Your task to perform on an android device: Go to battery settings Image 0: 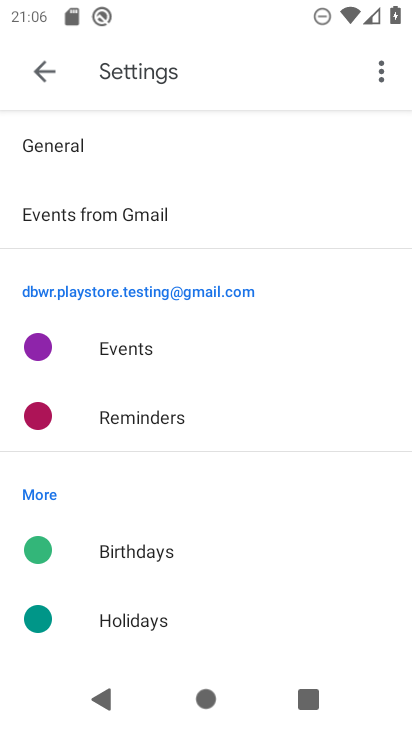
Step 0: press home button
Your task to perform on an android device: Go to battery settings Image 1: 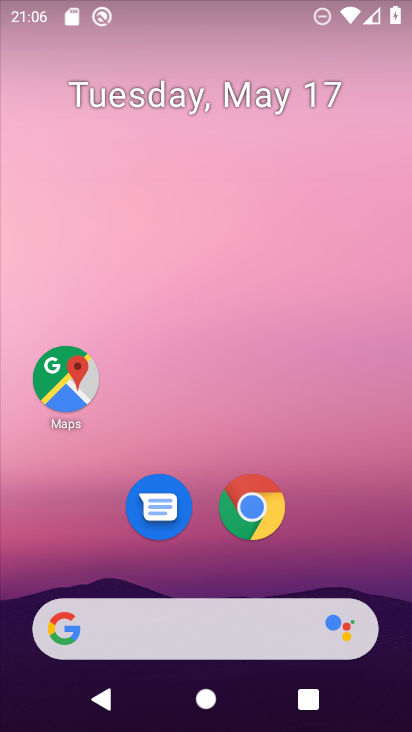
Step 1: drag from (361, 597) to (344, 378)
Your task to perform on an android device: Go to battery settings Image 2: 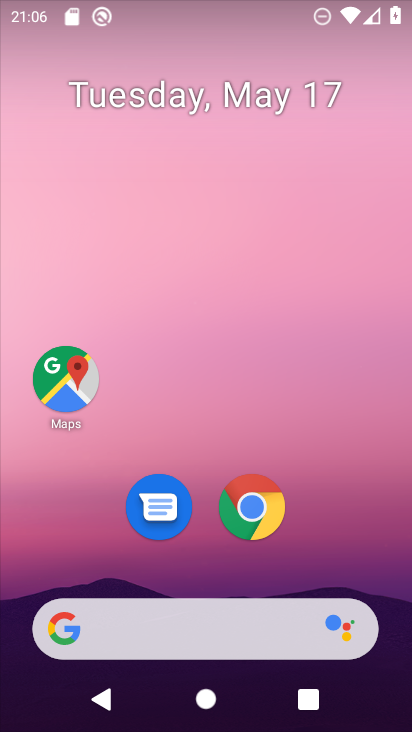
Step 2: drag from (337, 554) to (346, 112)
Your task to perform on an android device: Go to battery settings Image 3: 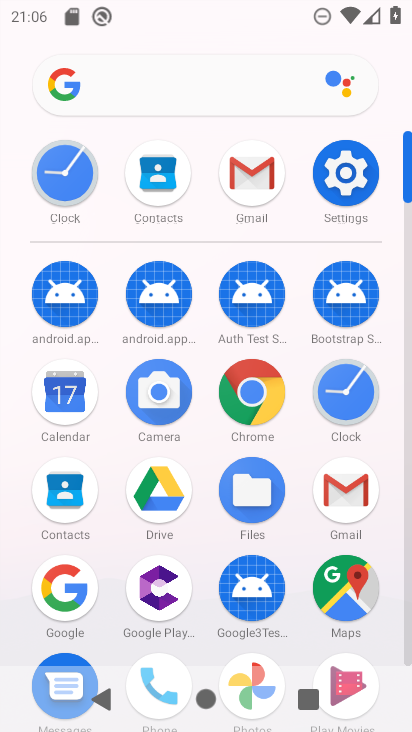
Step 3: click (345, 180)
Your task to perform on an android device: Go to battery settings Image 4: 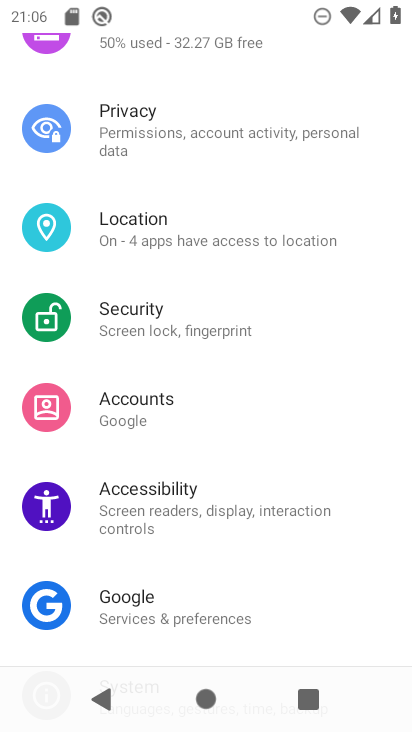
Step 4: drag from (262, 230) to (303, 465)
Your task to perform on an android device: Go to battery settings Image 5: 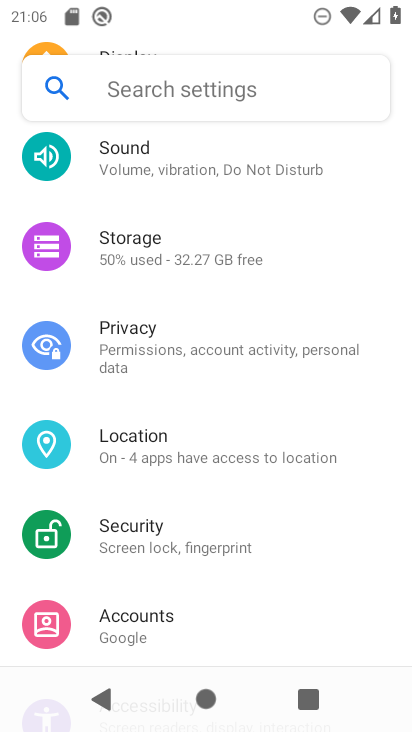
Step 5: drag from (203, 242) to (227, 567)
Your task to perform on an android device: Go to battery settings Image 6: 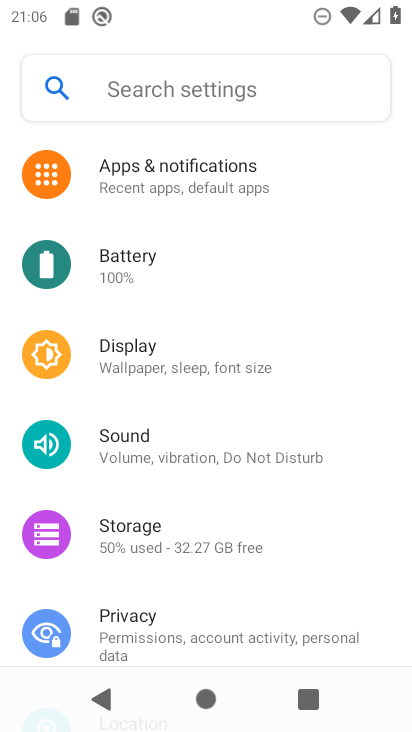
Step 6: drag from (188, 257) to (219, 539)
Your task to perform on an android device: Go to battery settings Image 7: 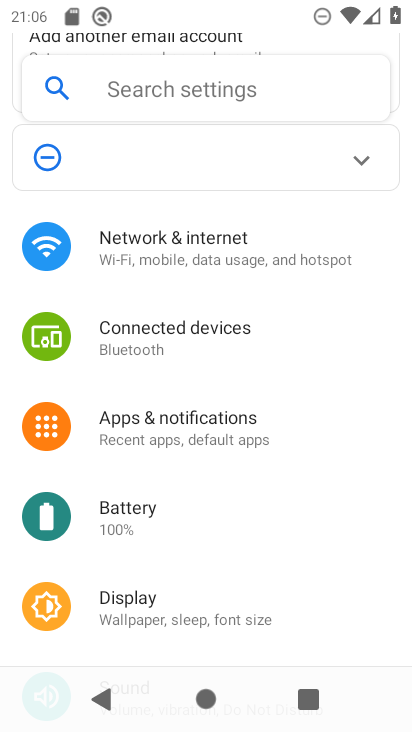
Step 7: drag from (219, 528) to (235, 346)
Your task to perform on an android device: Go to battery settings Image 8: 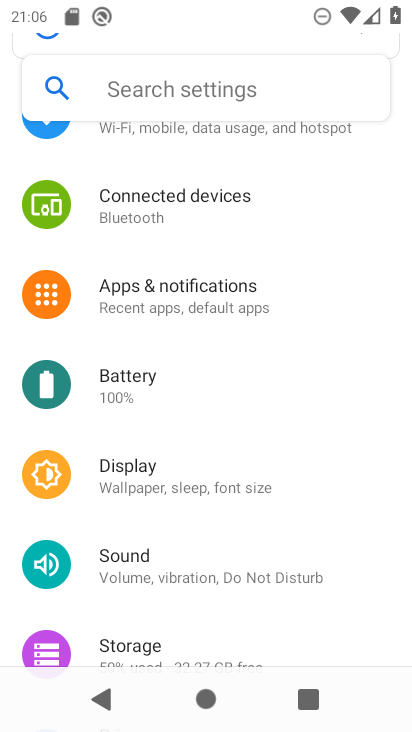
Step 8: click (149, 389)
Your task to perform on an android device: Go to battery settings Image 9: 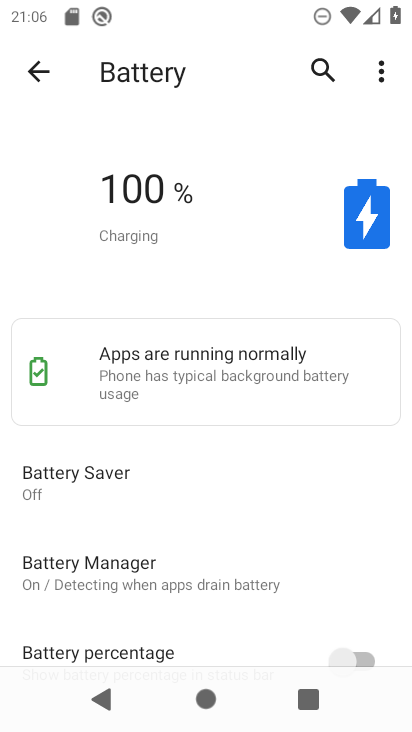
Step 9: task complete